Your task to perform on an android device: Search for "logitech g pro" on ebay.com, select the first entry, and add it to the cart. Image 0: 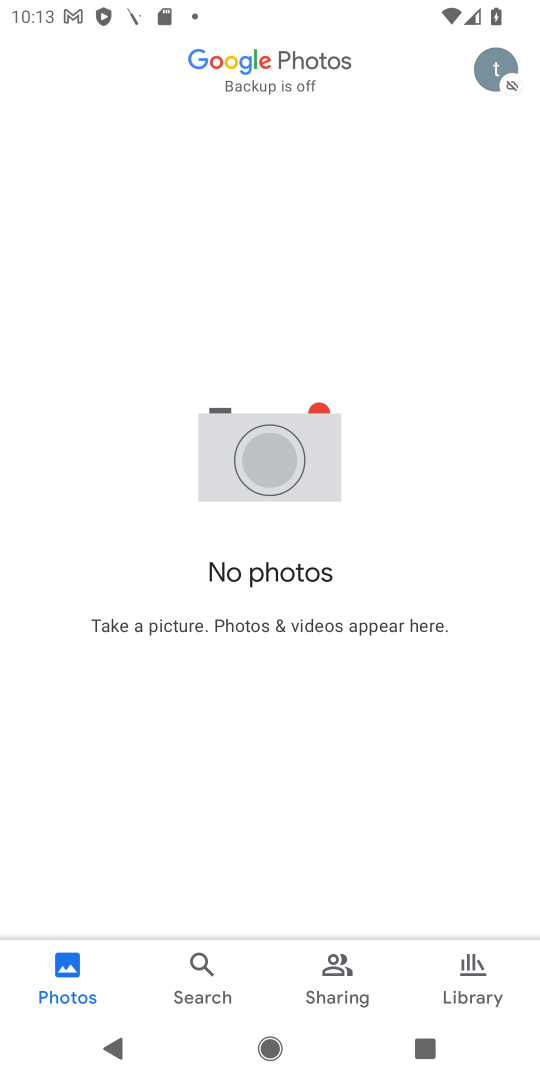
Step 0: press home button
Your task to perform on an android device: Search for "logitech g pro" on ebay.com, select the first entry, and add it to the cart. Image 1: 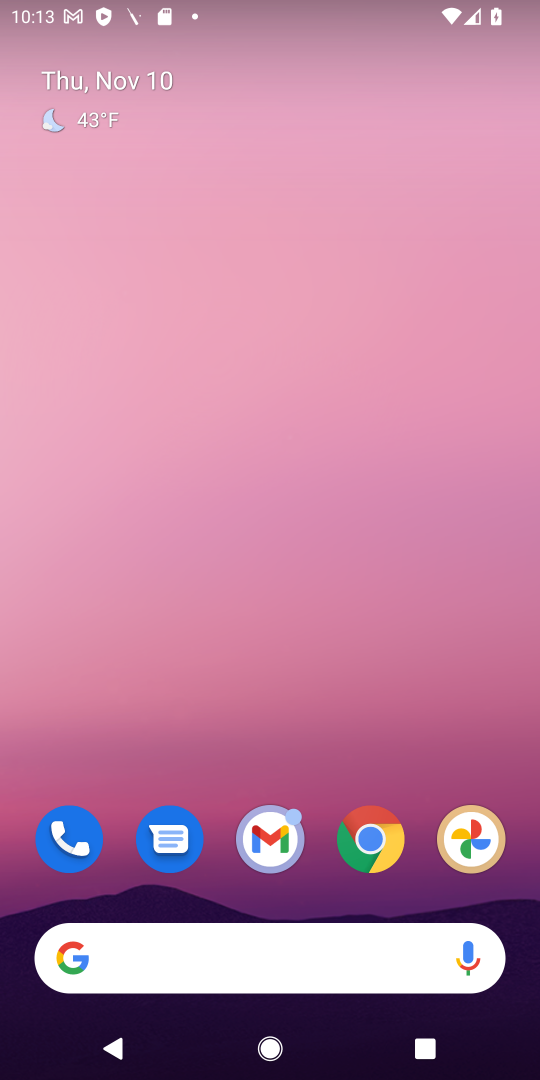
Step 1: click (350, 843)
Your task to perform on an android device: Search for "logitech g pro" on ebay.com, select the first entry, and add it to the cart. Image 2: 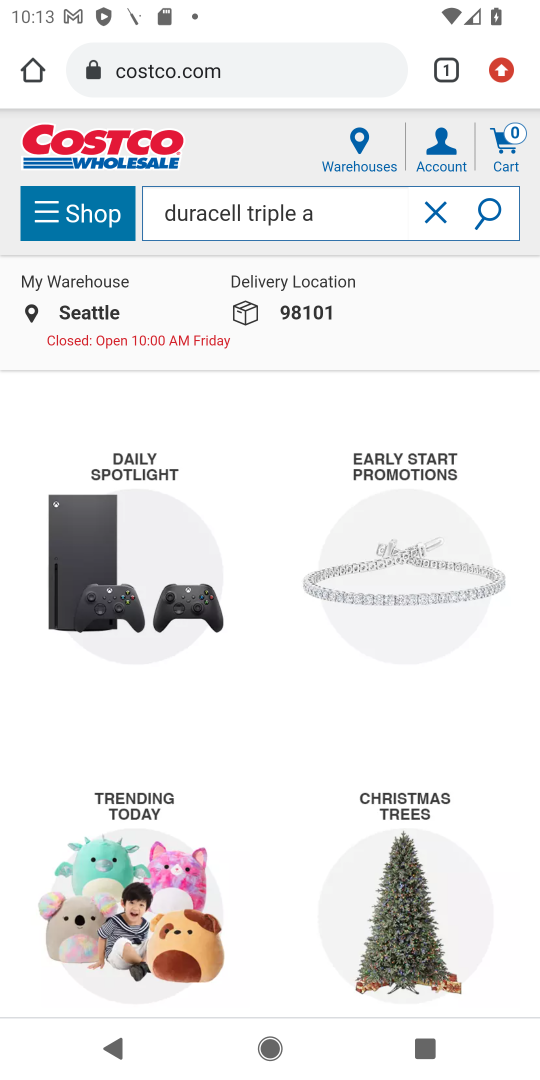
Step 2: click (336, 73)
Your task to perform on an android device: Search for "logitech g pro" on ebay.com, select the first entry, and add it to the cart. Image 3: 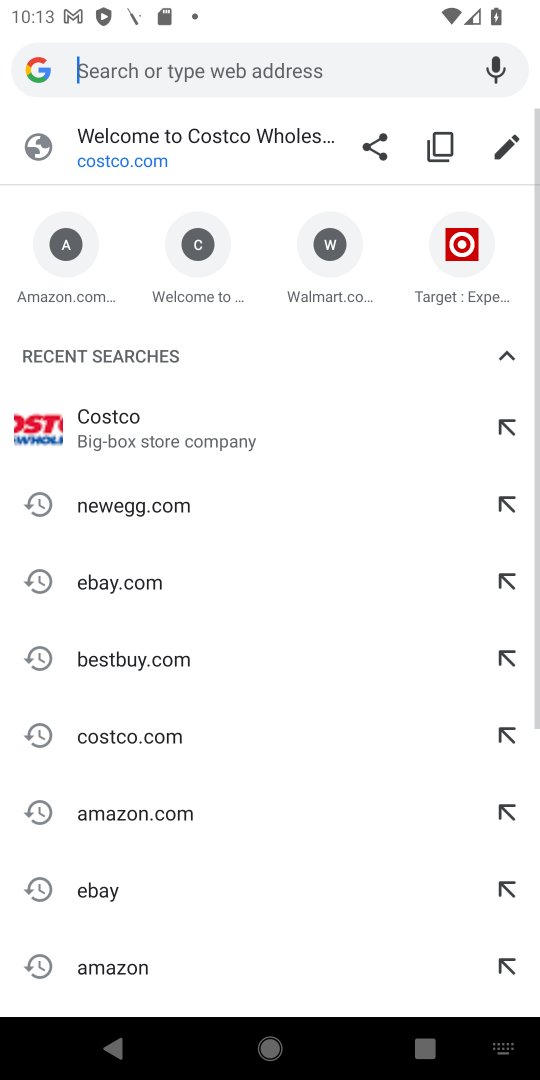
Step 3: click (153, 585)
Your task to perform on an android device: Search for "logitech g pro" on ebay.com, select the first entry, and add it to the cart. Image 4: 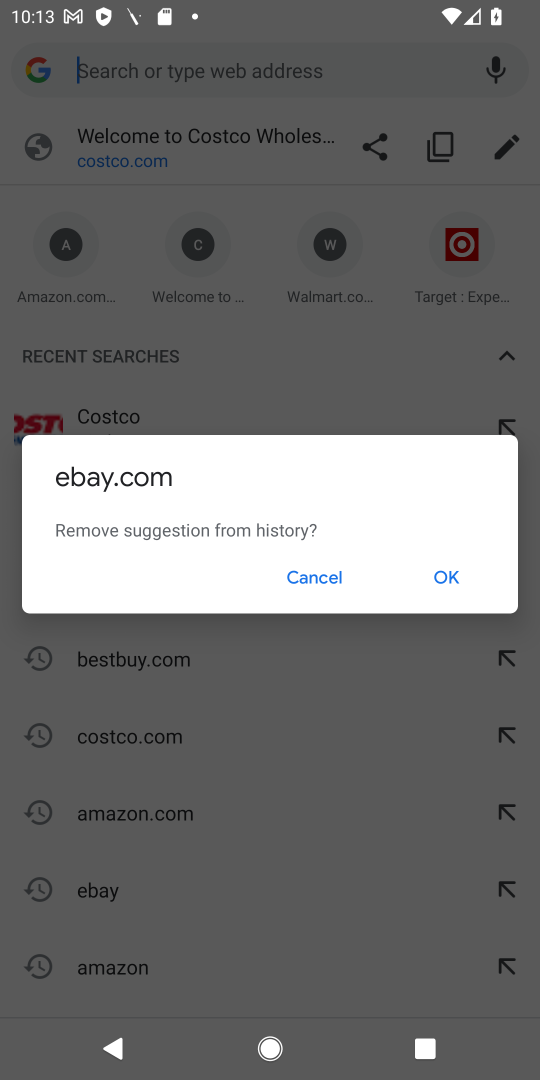
Step 4: click (443, 575)
Your task to perform on an android device: Search for "logitech g pro" on ebay.com, select the first entry, and add it to the cart. Image 5: 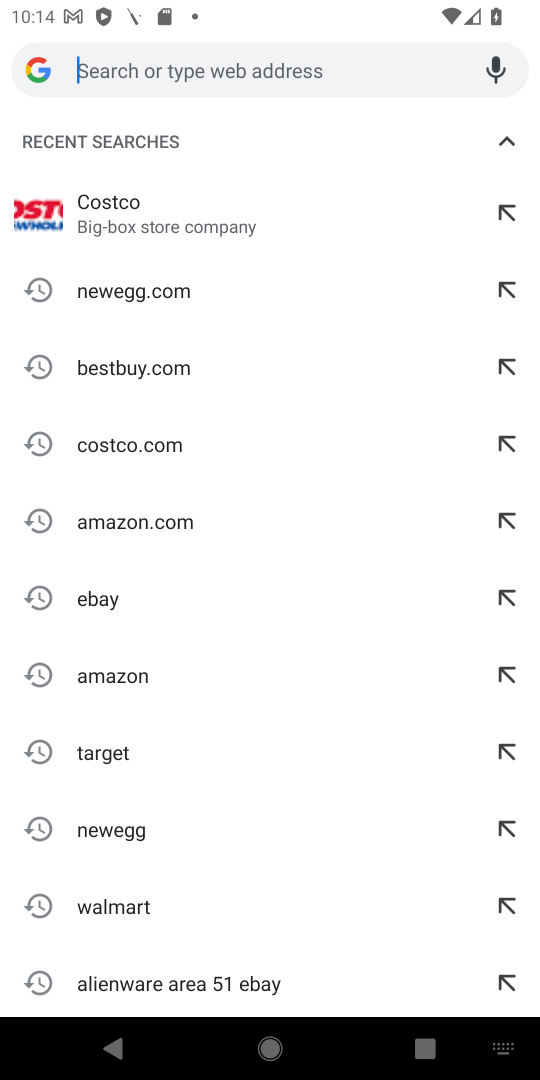
Step 5: type "logitech g pro"
Your task to perform on an android device: Search for "logitech g pro" on ebay.com, select the first entry, and add it to the cart. Image 6: 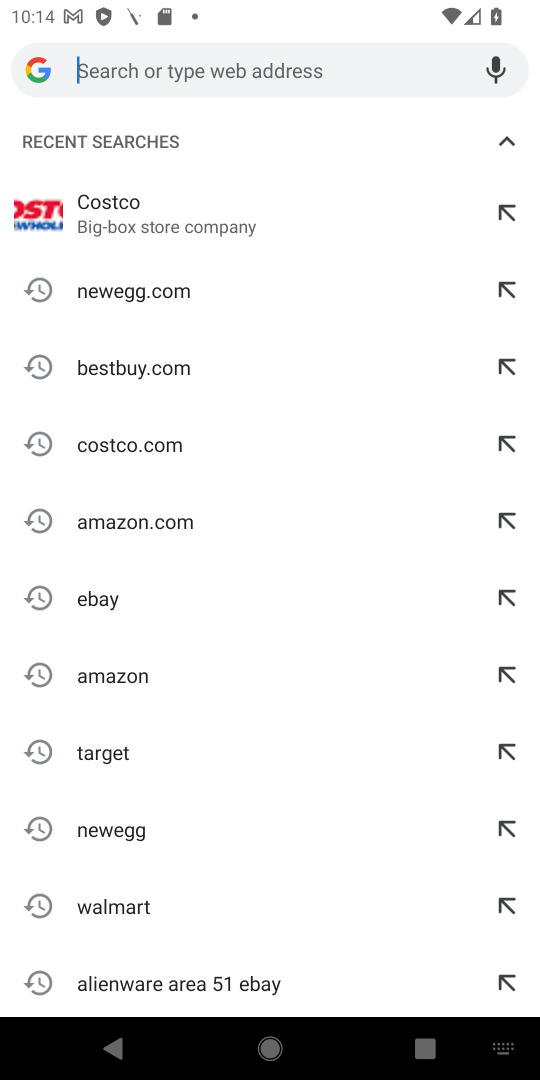
Step 6: click (100, 594)
Your task to perform on an android device: Search for "logitech g pro" on ebay.com, select the first entry, and add it to the cart. Image 7: 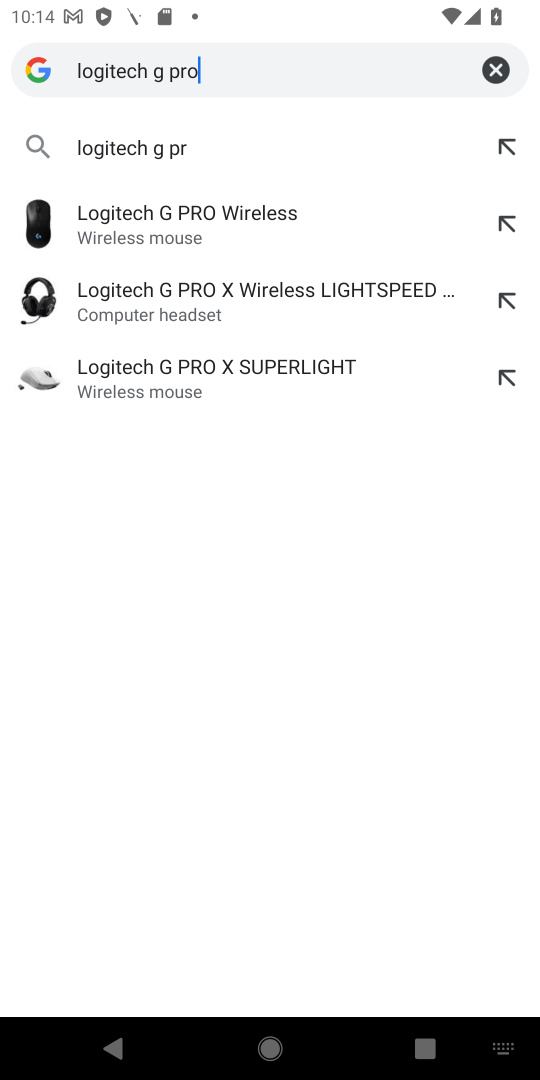
Step 7: click (495, 65)
Your task to perform on an android device: Search for "logitech g pro" on ebay.com, select the first entry, and add it to the cart. Image 8: 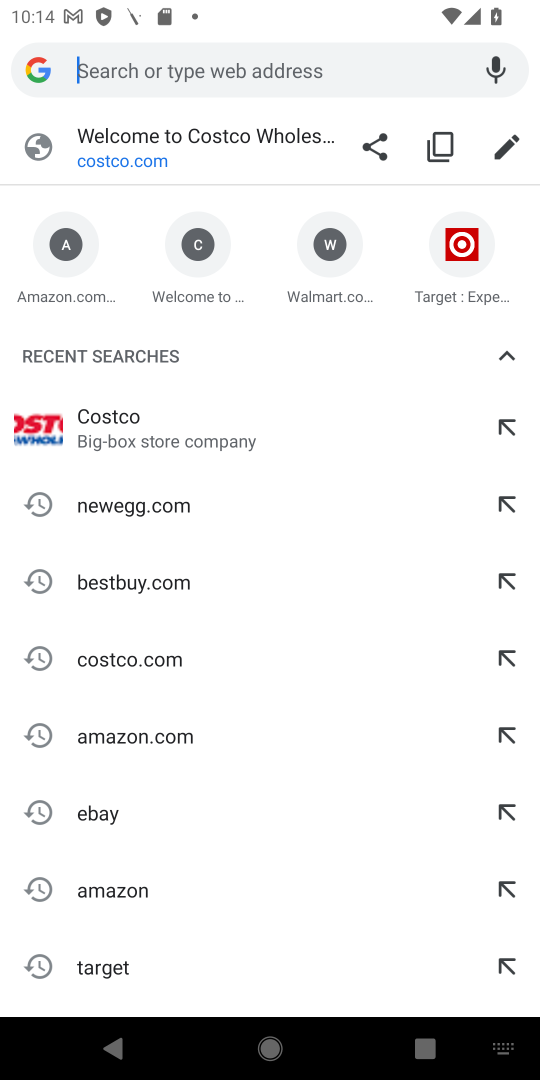
Step 8: click (102, 814)
Your task to perform on an android device: Search for "logitech g pro" on ebay.com, select the first entry, and add it to the cart. Image 9: 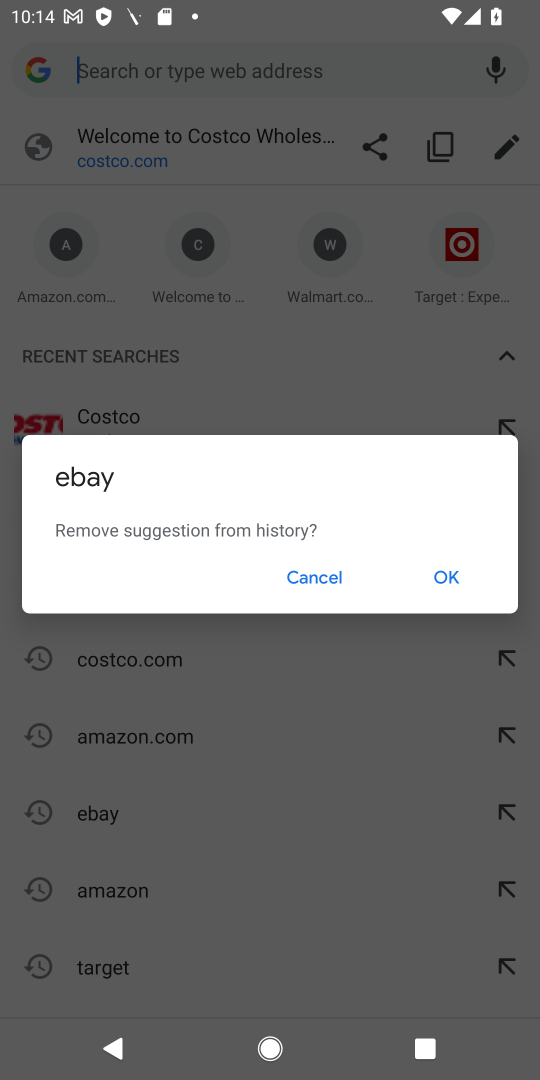
Step 9: click (455, 562)
Your task to perform on an android device: Search for "logitech g pro" on ebay.com, select the first entry, and add it to the cart. Image 10: 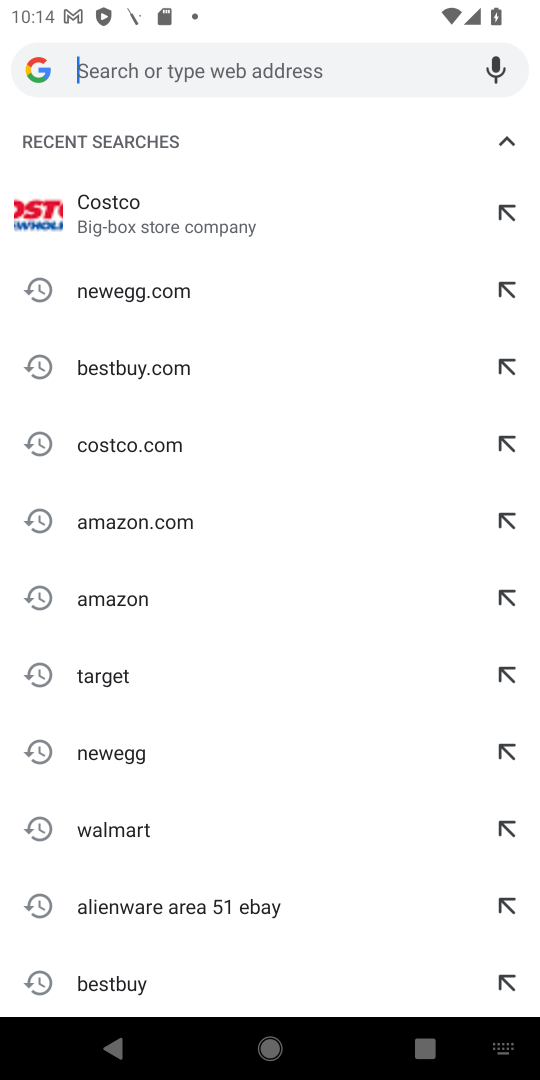
Step 10: press enter
Your task to perform on an android device: Search for "logitech g pro" on ebay.com, select the first entry, and add it to the cart. Image 11: 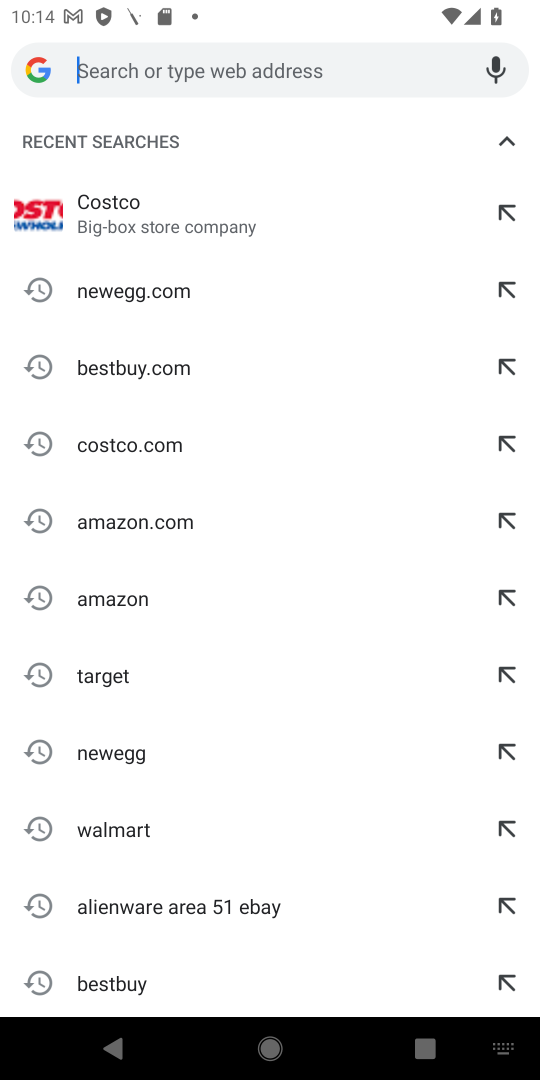
Step 11: type "ebay.com"
Your task to perform on an android device: Search for "logitech g pro" on ebay.com, select the first entry, and add it to the cart. Image 12: 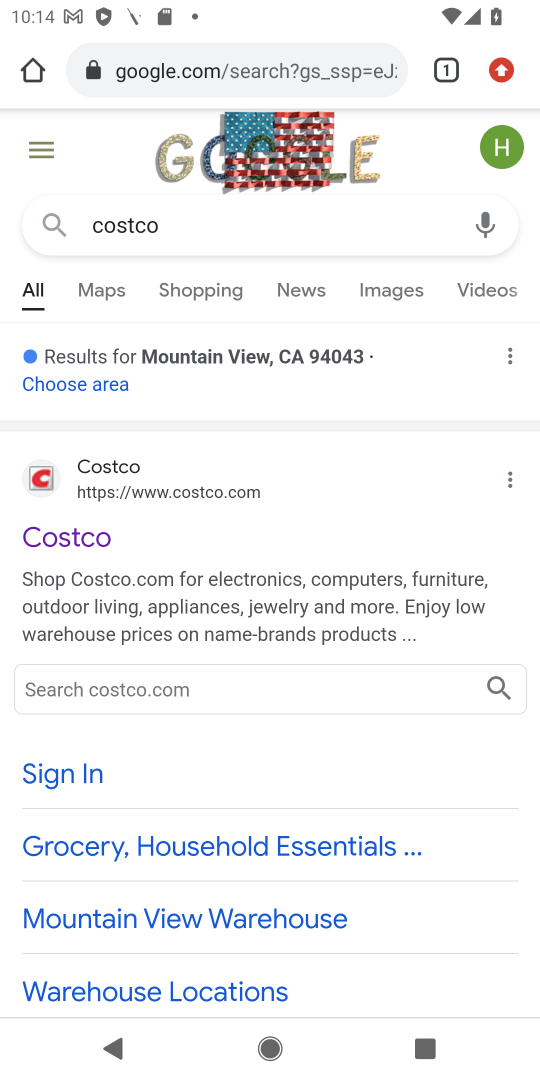
Step 12: click (190, 486)
Your task to perform on an android device: Search for "logitech g pro" on ebay.com, select the first entry, and add it to the cart. Image 13: 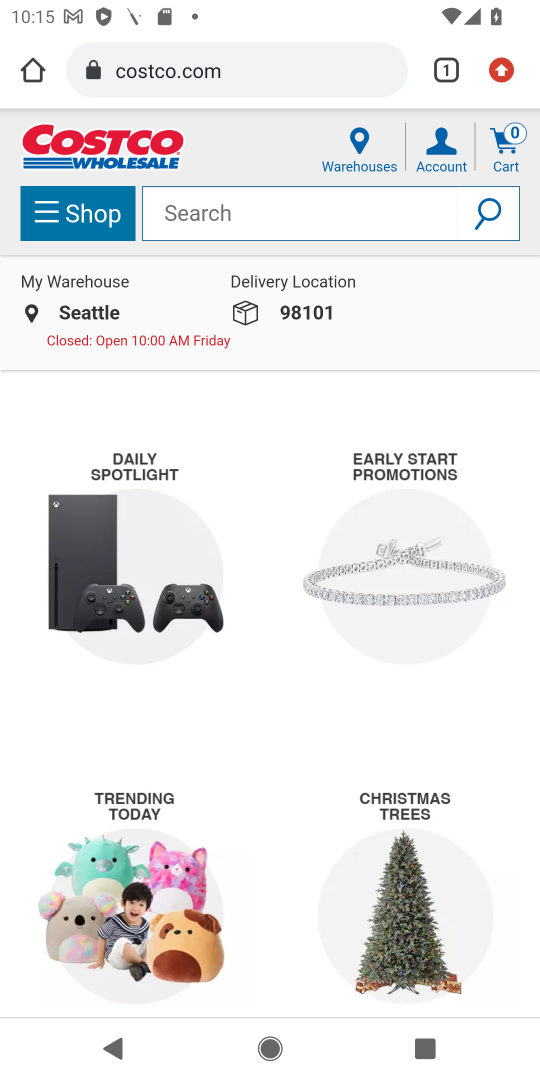
Step 13: click (331, 198)
Your task to perform on an android device: Search for "logitech g pro" on ebay.com, select the first entry, and add it to the cart. Image 14: 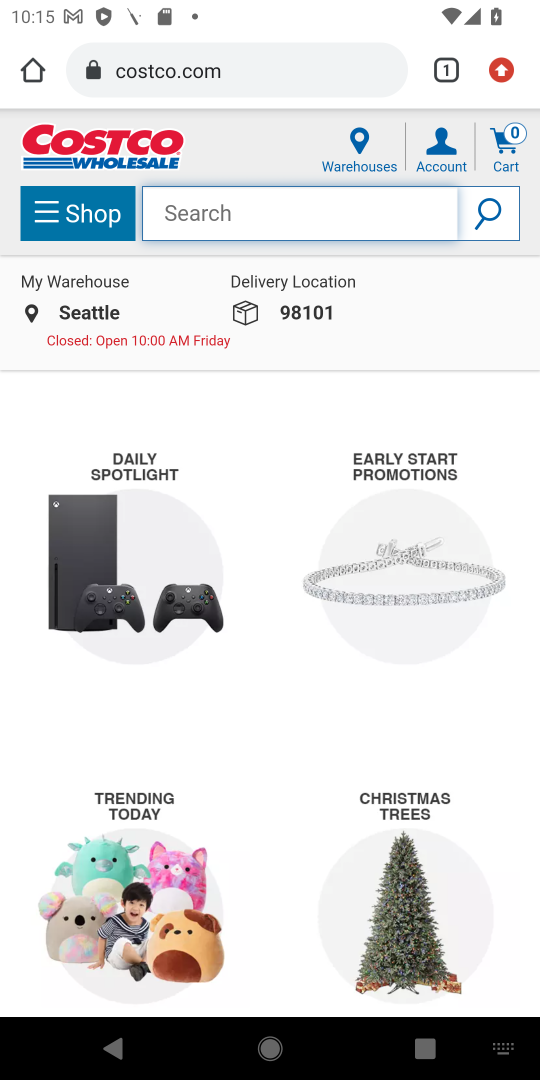
Step 14: press enter
Your task to perform on an android device: Search for "logitech g pro" on ebay.com, select the first entry, and add it to the cart. Image 15: 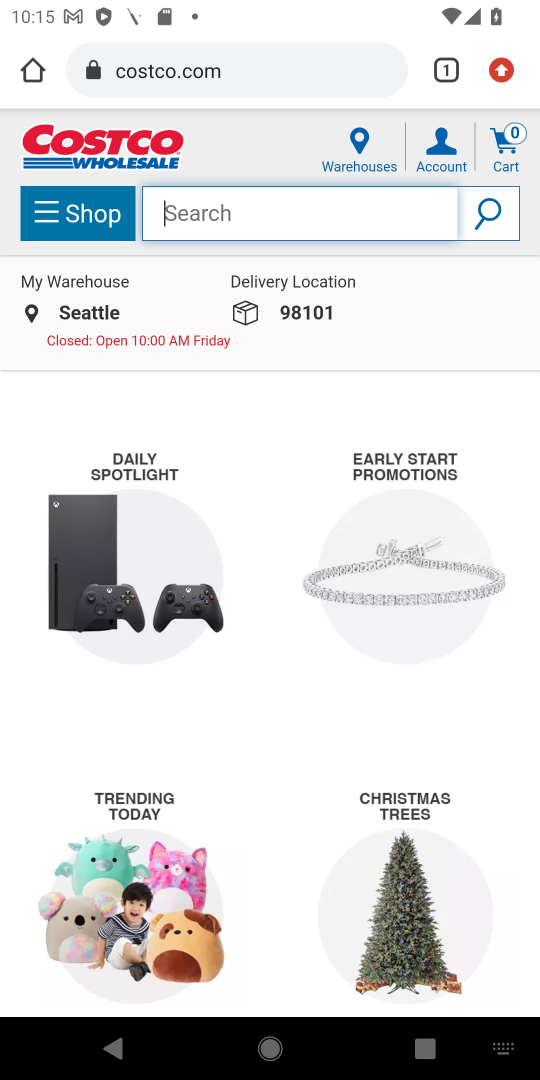
Step 15: type "logitech g pro"
Your task to perform on an android device: Search for "logitech g pro" on ebay.com, select the first entry, and add it to the cart. Image 16: 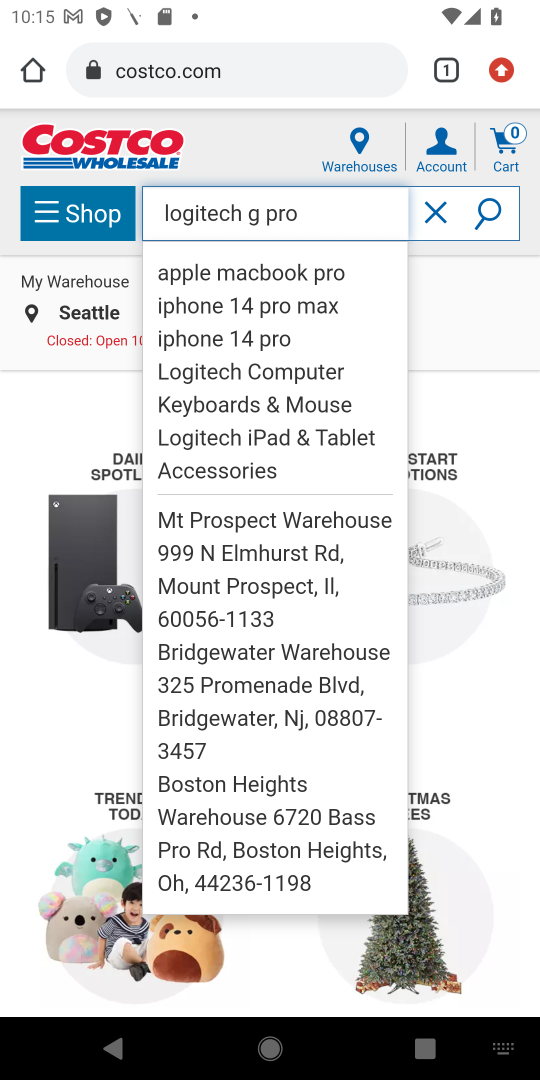
Step 16: click (498, 318)
Your task to perform on an android device: Search for "logitech g pro" on ebay.com, select the first entry, and add it to the cart. Image 17: 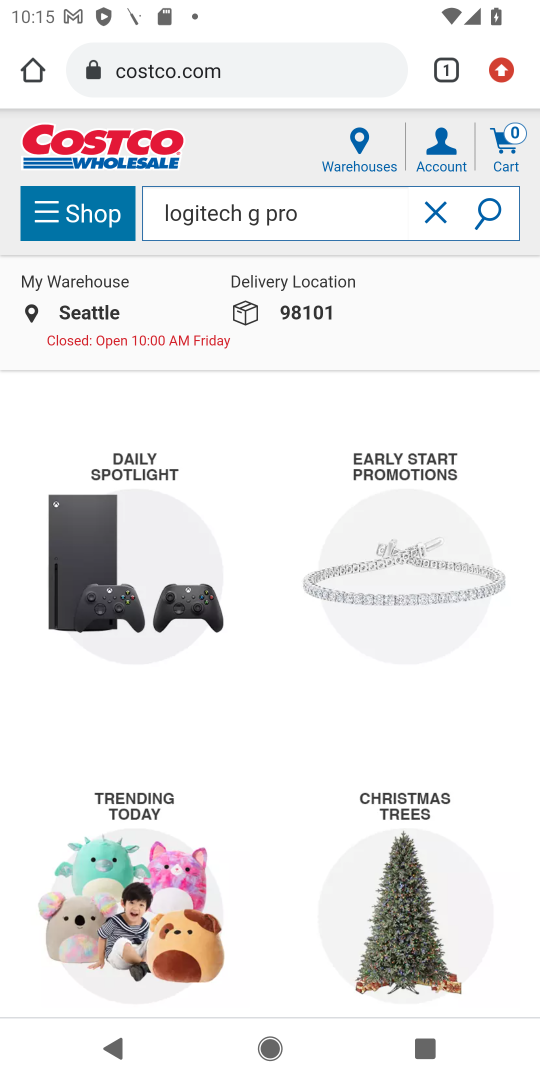
Step 17: task complete